Your task to perform on an android device: turn off priority inbox in the gmail app Image 0: 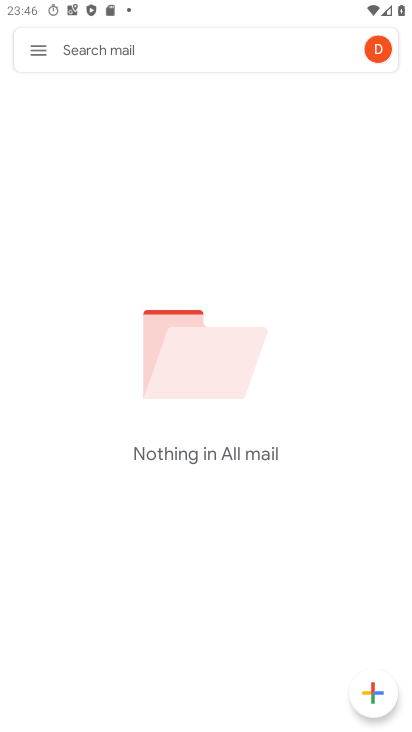
Step 0: click (31, 51)
Your task to perform on an android device: turn off priority inbox in the gmail app Image 1: 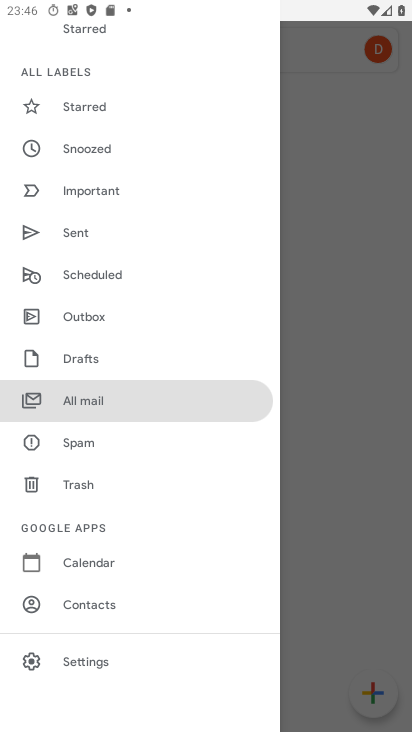
Step 1: click (96, 658)
Your task to perform on an android device: turn off priority inbox in the gmail app Image 2: 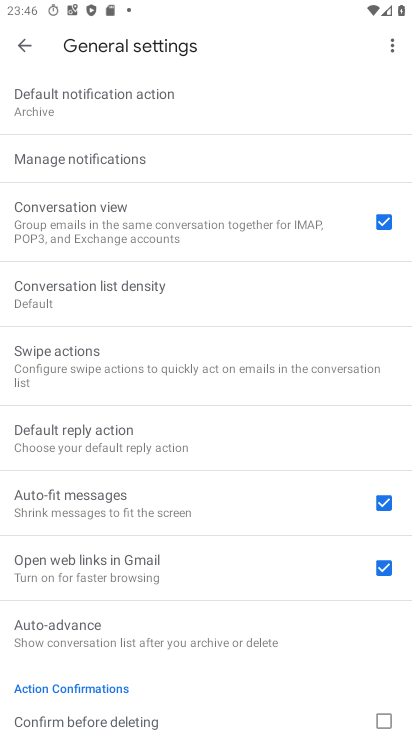
Step 2: click (17, 43)
Your task to perform on an android device: turn off priority inbox in the gmail app Image 3: 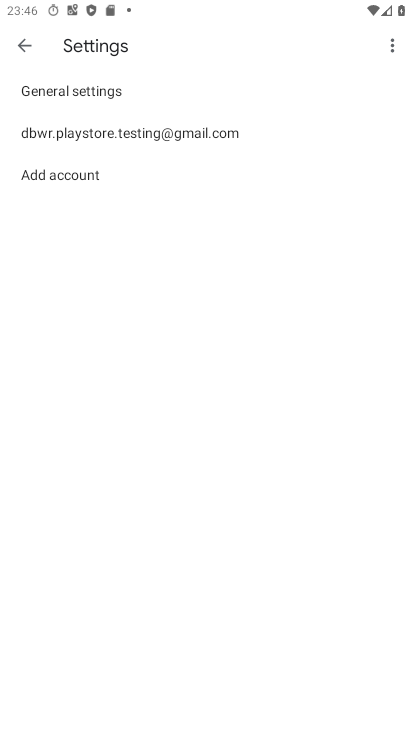
Step 3: click (65, 139)
Your task to perform on an android device: turn off priority inbox in the gmail app Image 4: 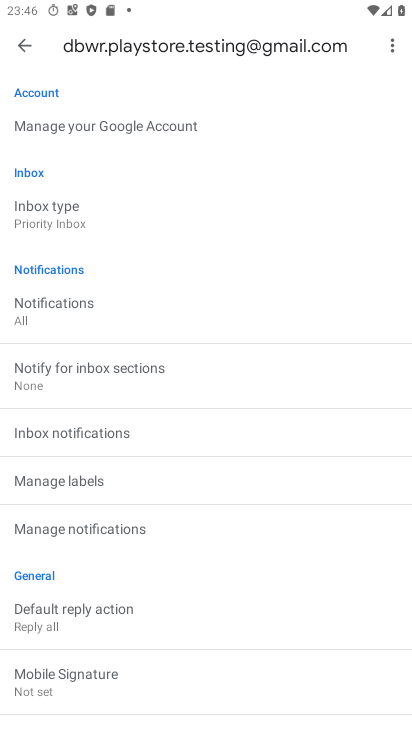
Step 4: click (49, 216)
Your task to perform on an android device: turn off priority inbox in the gmail app Image 5: 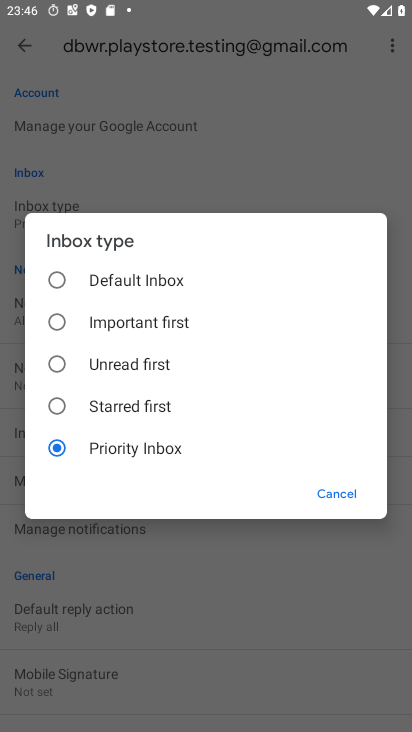
Step 5: click (60, 284)
Your task to perform on an android device: turn off priority inbox in the gmail app Image 6: 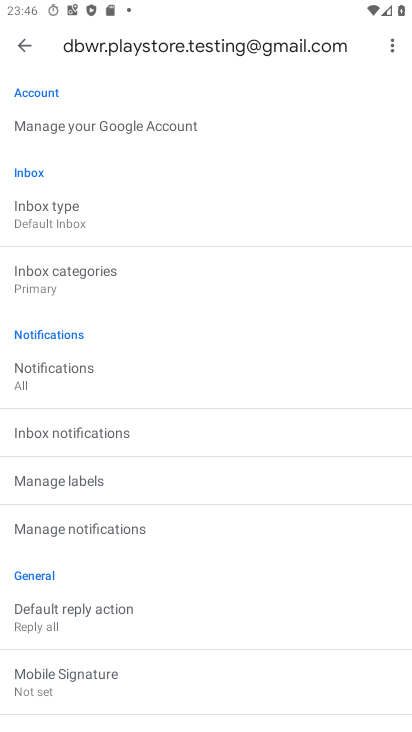
Step 6: task complete